Your task to perform on an android device: Go to Google maps Image 0: 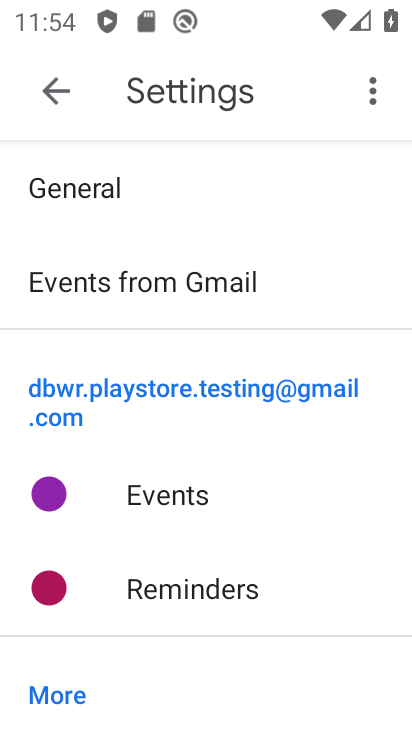
Step 0: press home button
Your task to perform on an android device: Go to Google maps Image 1: 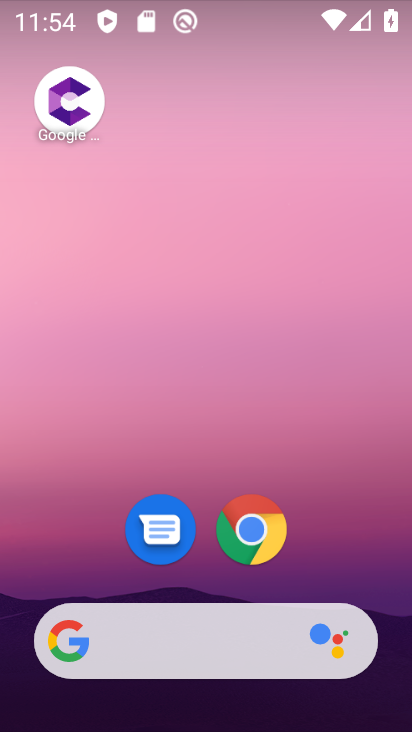
Step 1: drag from (338, 578) to (346, 34)
Your task to perform on an android device: Go to Google maps Image 2: 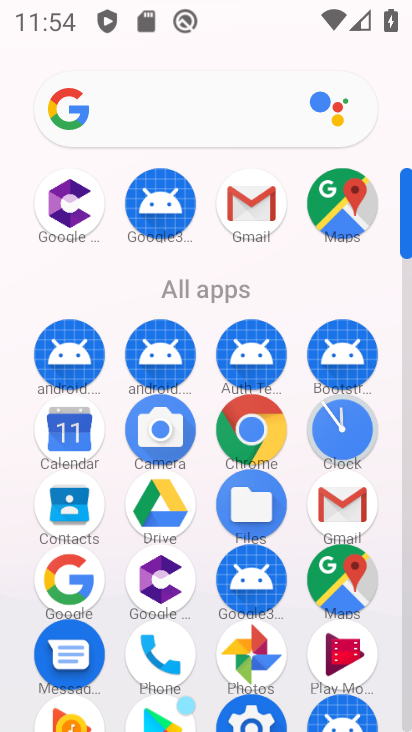
Step 2: click (325, 588)
Your task to perform on an android device: Go to Google maps Image 3: 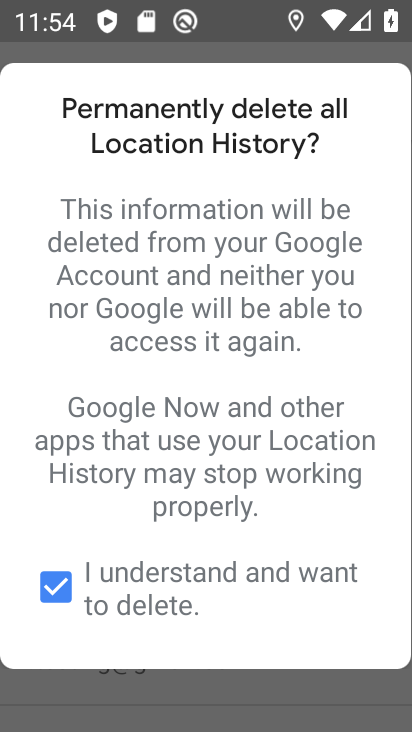
Step 3: press back button
Your task to perform on an android device: Go to Google maps Image 4: 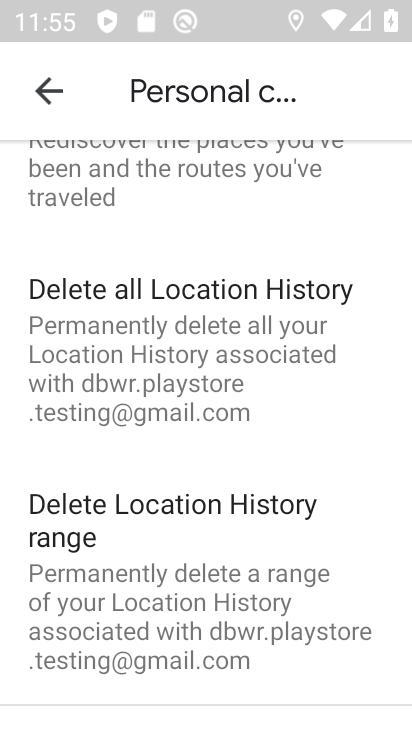
Step 4: click (29, 95)
Your task to perform on an android device: Go to Google maps Image 5: 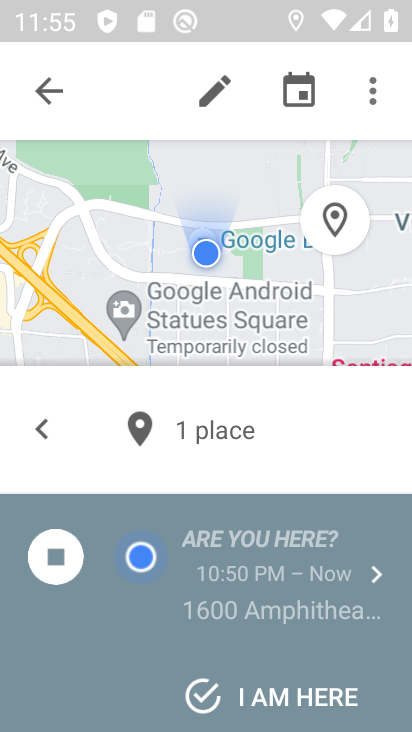
Step 5: click (26, 79)
Your task to perform on an android device: Go to Google maps Image 6: 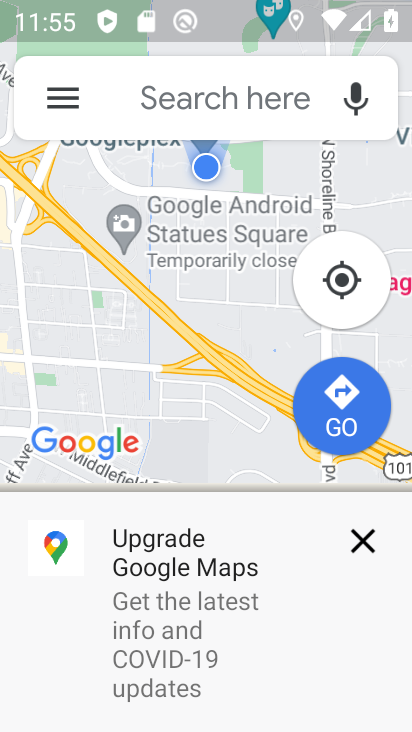
Step 6: task complete